Your task to perform on an android device: turn off location history Image 0: 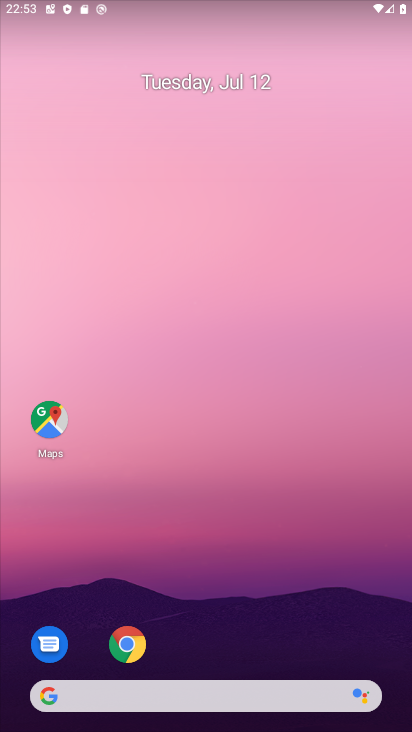
Step 0: click (52, 414)
Your task to perform on an android device: turn off location history Image 1: 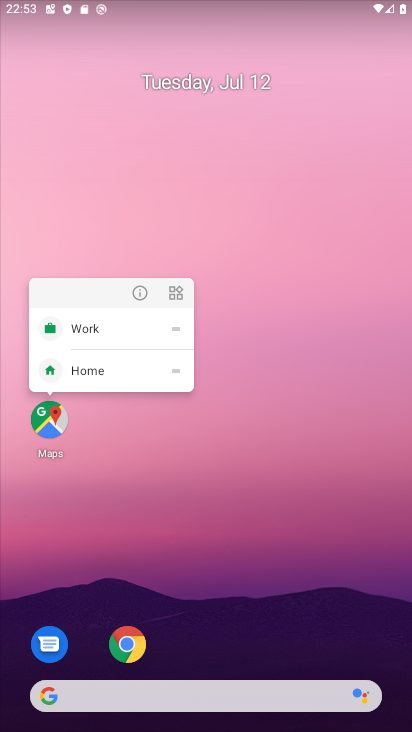
Step 1: click (53, 413)
Your task to perform on an android device: turn off location history Image 2: 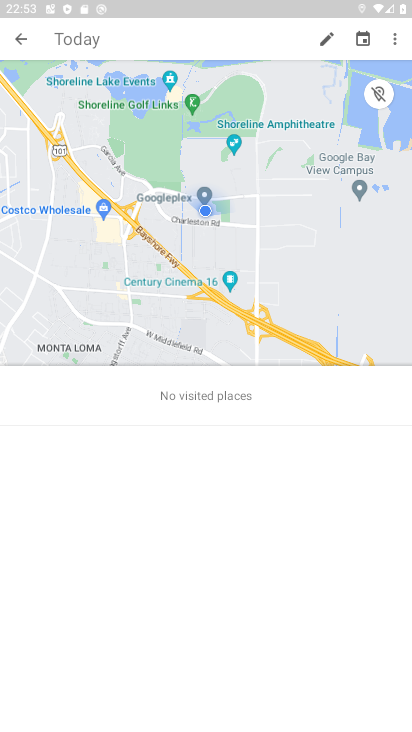
Step 2: click (398, 38)
Your task to perform on an android device: turn off location history Image 3: 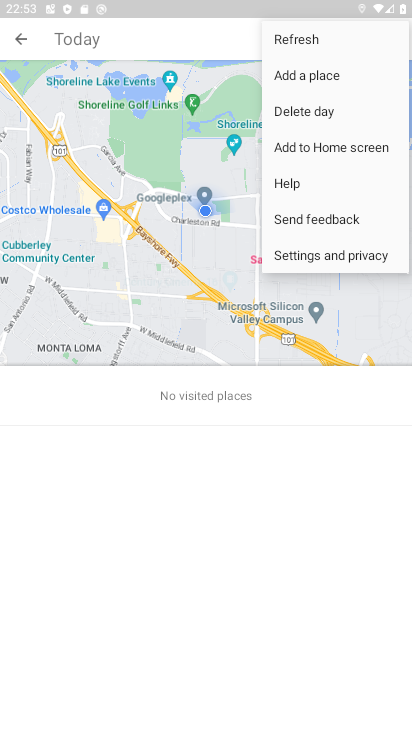
Step 3: click (362, 257)
Your task to perform on an android device: turn off location history Image 4: 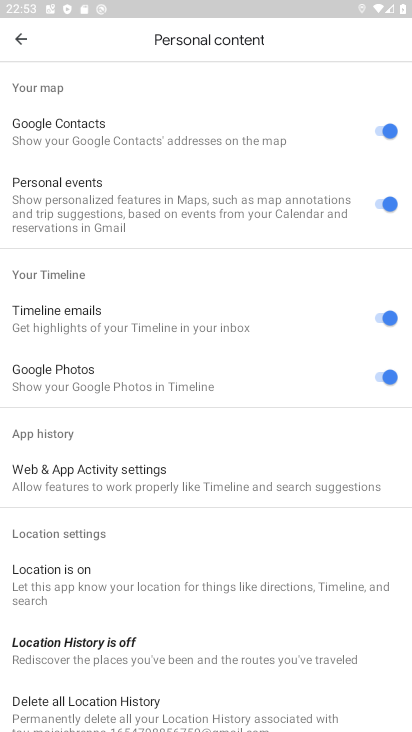
Step 4: drag from (252, 635) to (220, 121)
Your task to perform on an android device: turn off location history Image 5: 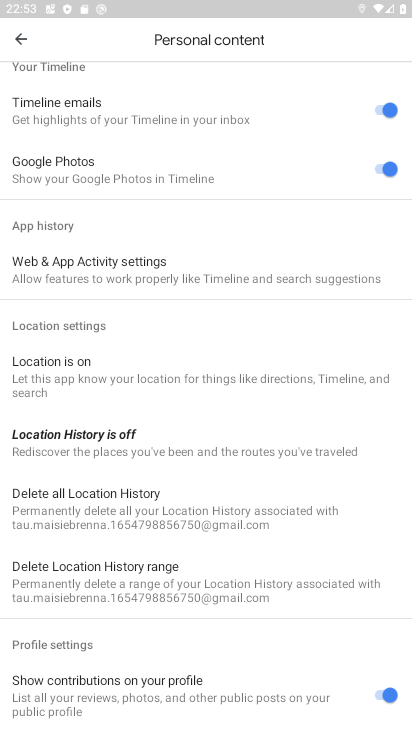
Step 5: click (161, 454)
Your task to perform on an android device: turn off location history Image 6: 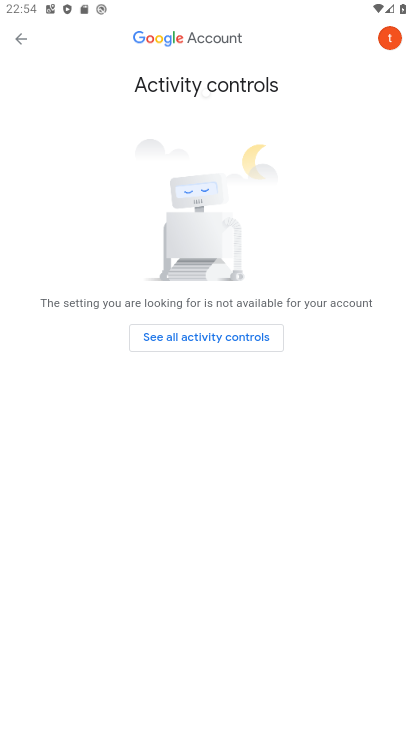
Step 6: click (252, 335)
Your task to perform on an android device: turn off location history Image 7: 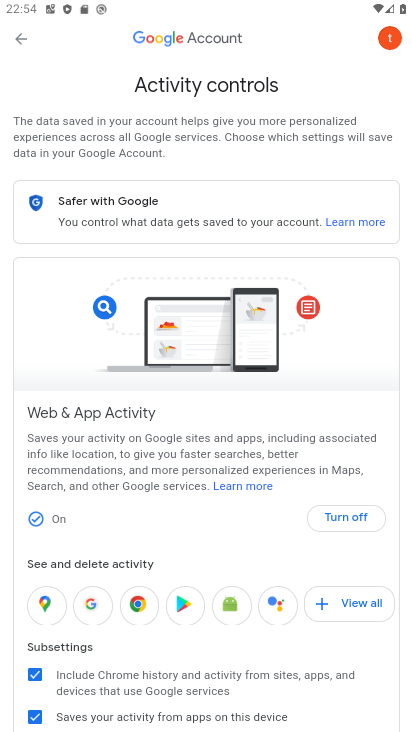
Step 7: task complete